Your task to perform on an android device: Do I have any events this weekend? Image 0: 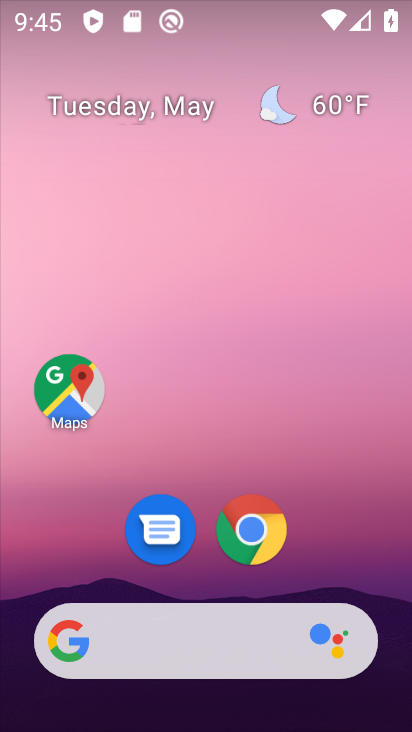
Step 0: drag from (155, 534) to (173, 219)
Your task to perform on an android device: Do I have any events this weekend? Image 1: 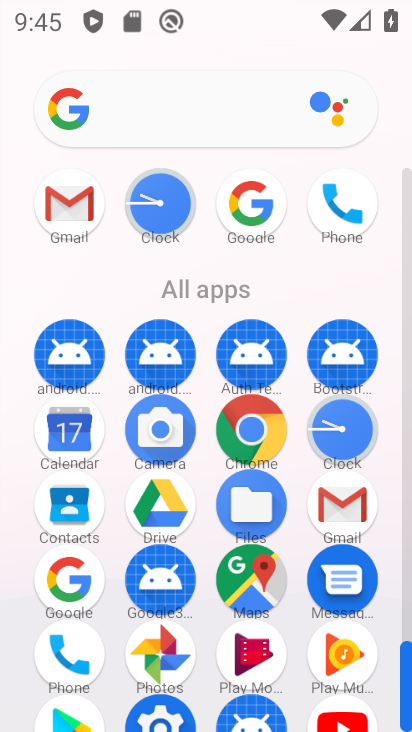
Step 1: click (76, 436)
Your task to perform on an android device: Do I have any events this weekend? Image 2: 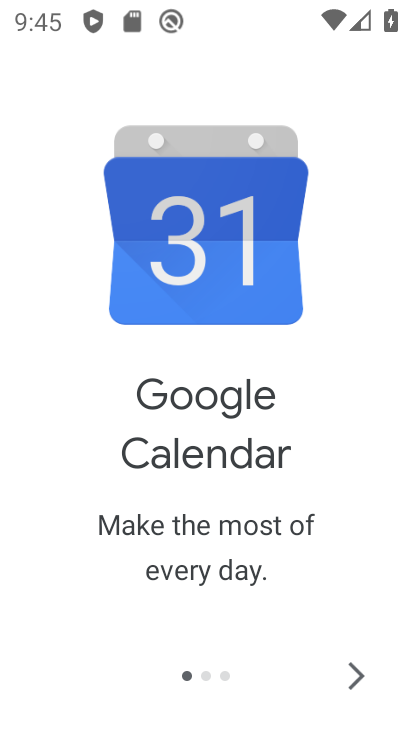
Step 2: click (356, 671)
Your task to perform on an android device: Do I have any events this weekend? Image 3: 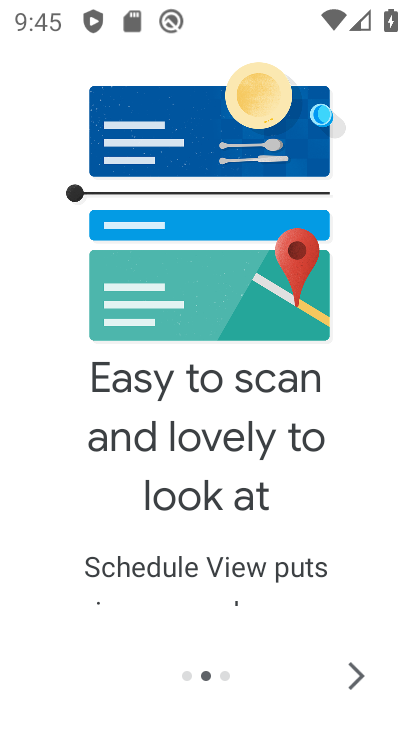
Step 3: click (356, 671)
Your task to perform on an android device: Do I have any events this weekend? Image 4: 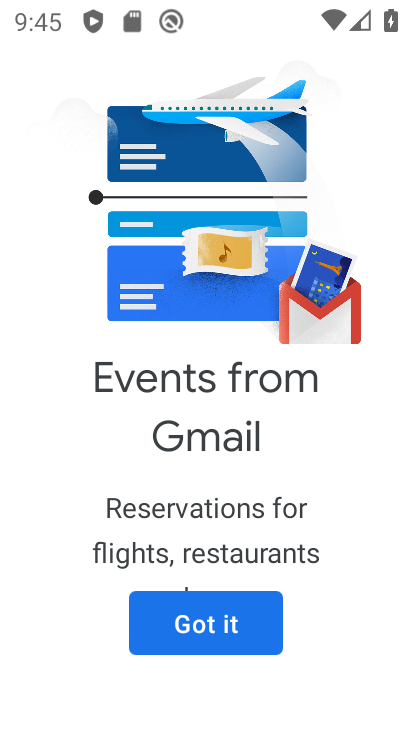
Step 4: click (225, 634)
Your task to perform on an android device: Do I have any events this weekend? Image 5: 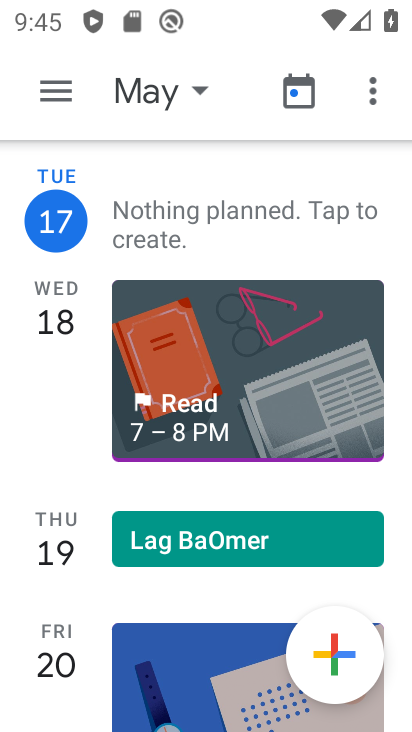
Step 5: drag from (228, 675) to (186, 402)
Your task to perform on an android device: Do I have any events this weekend? Image 6: 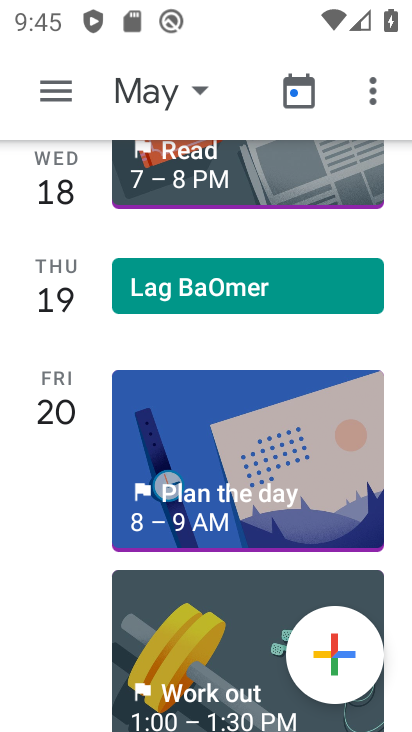
Step 6: drag from (221, 682) to (199, 449)
Your task to perform on an android device: Do I have any events this weekend? Image 7: 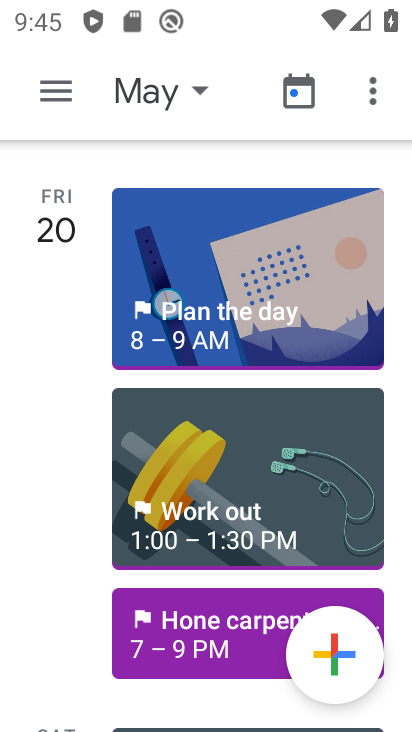
Step 7: click (196, 502)
Your task to perform on an android device: Do I have any events this weekend? Image 8: 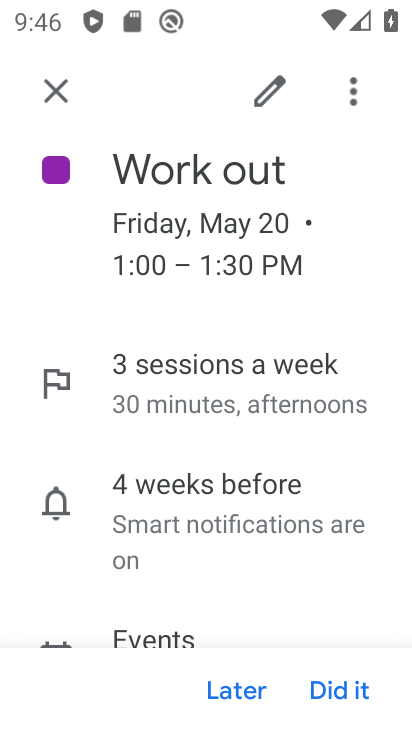
Step 8: task complete